Your task to perform on an android device: open app "Google Play services" (install if not already installed) Image 0: 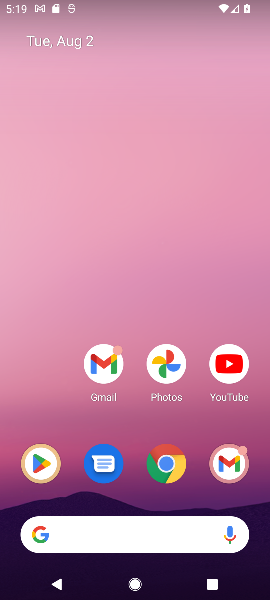
Step 0: press home button
Your task to perform on an android device: open app "Google Play services" (install if not already installed) Image 1: 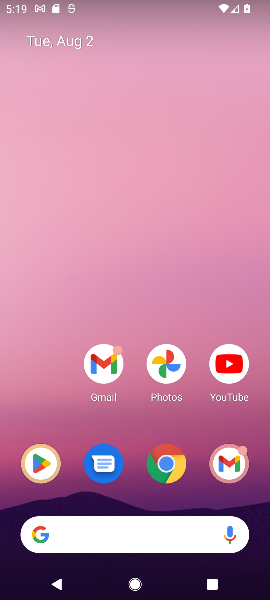
Step 1: click (45, 459)
Your task to perform on an android device: open app "Google Play services" (install if not already installed) Image 2: 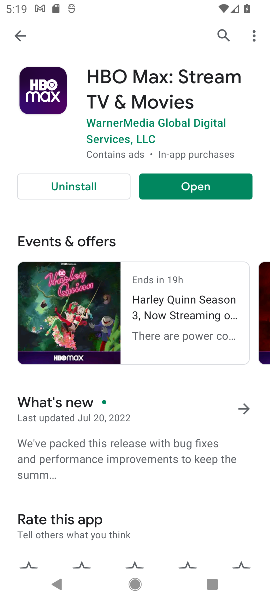
Step 2: click (222, 28)
Your task to perform on an android device: open app "Google Play services" (install if not already installed) Image 3: 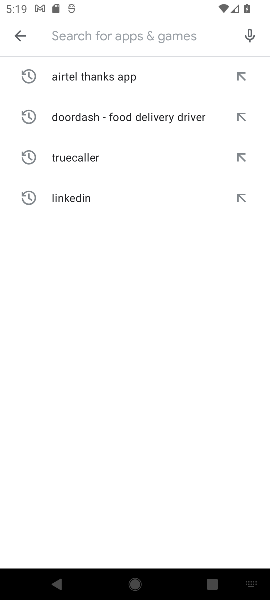
Step 3: type "Google Play services"
Your task to perform on an android device: open app "Google Play services" (install if not already installed) Image 4: 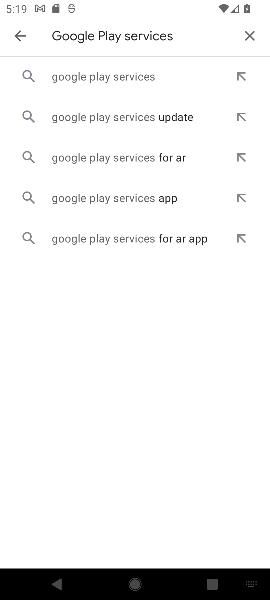
Step 4: click (105, 70)
Your task to perform on an android device: open app "Google Play services" (install if not already installed) Image 5: 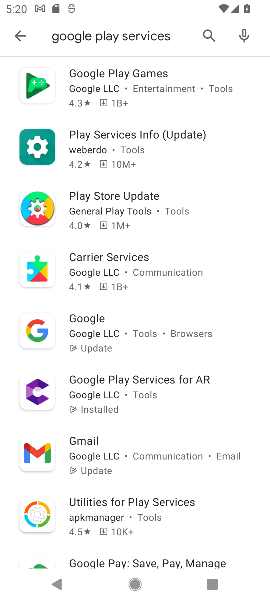
Step 5: task complete